Your task to perform on an android device: open app "Yahoo Mail" Image 0: 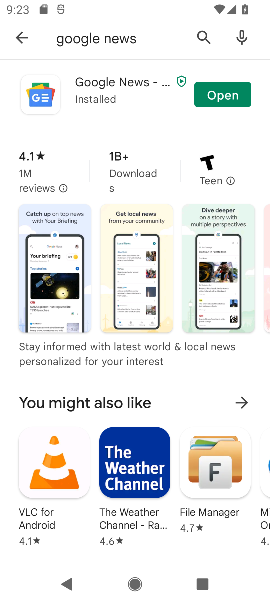
Step 0: press back button
Your task to perform on an android device: open app "Yahoo Mail" Image 1: 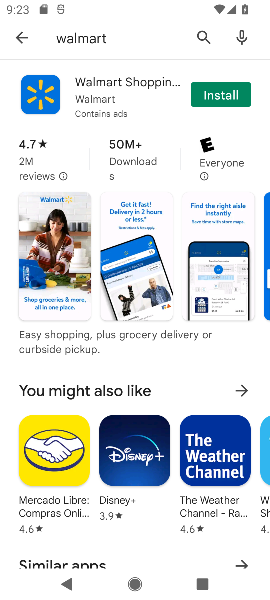
Step 1: press back button
Your task to perform on an android device: open app "Yahoo Mail" Image 2: 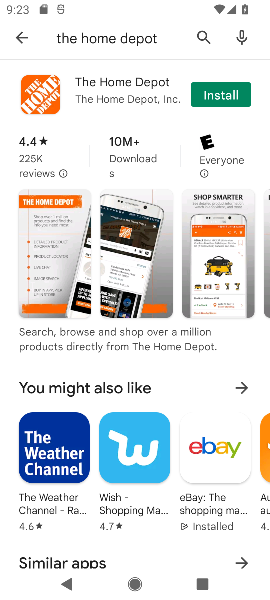
Step 2: press back button
Your task to perform on an android device: open app "Yahoo Mail" Image 3: 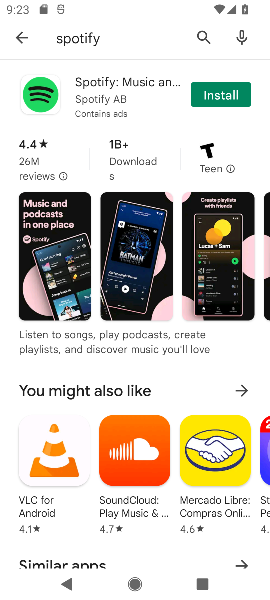
Step 3: press back button
Your task to perform on an android device: open app "Yahoo Mail" Image 4: 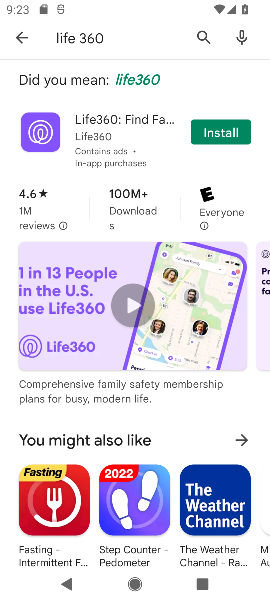
Step 4: click (206, 38)
Your task to perform on an android device: open app "Yahoo Mail" Image 5: 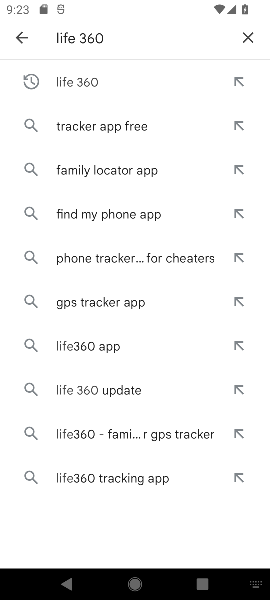
Step 5: click (245, 32)
Your task to perform on an android device: open app "Yahoo Mail" Image 6: 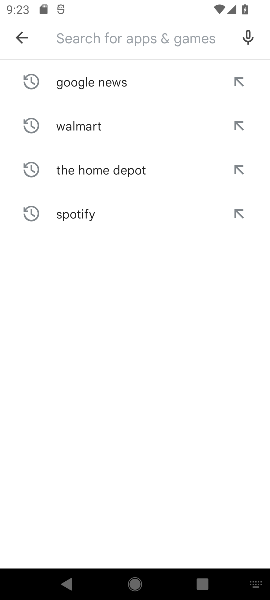
Step 6: click (128, 38)
Your task to perform on an android device: open app "Yahoo Mail" Image 7: 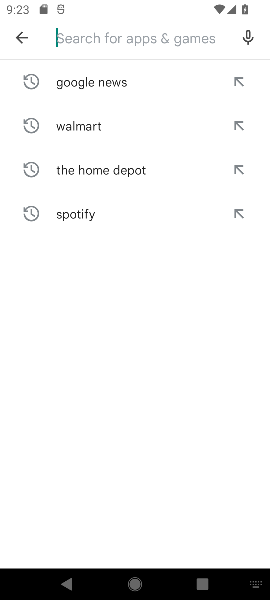
Step 7: type "yahoo mail"
Your task to perform on an android device: open app "Yahoo Mail" Image 8: 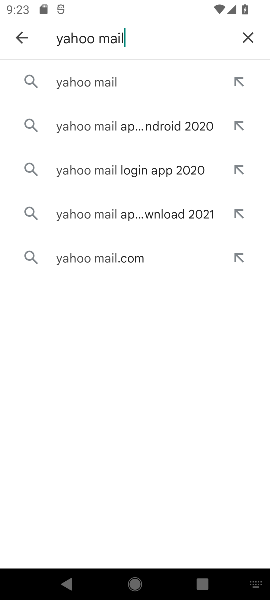
Step 8: click (109, 72)
Your task to perform on an android device: open app "Yahoo Mail" Image 9: 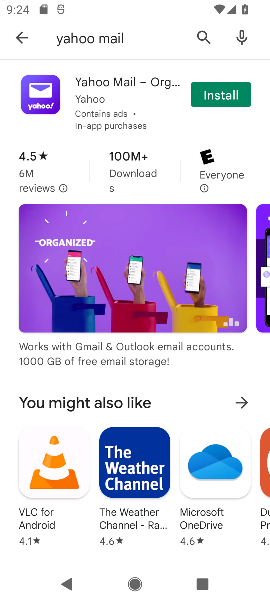
Step 9: task complete